Your task to perform on an android device: change alarm snooze length Image 0: 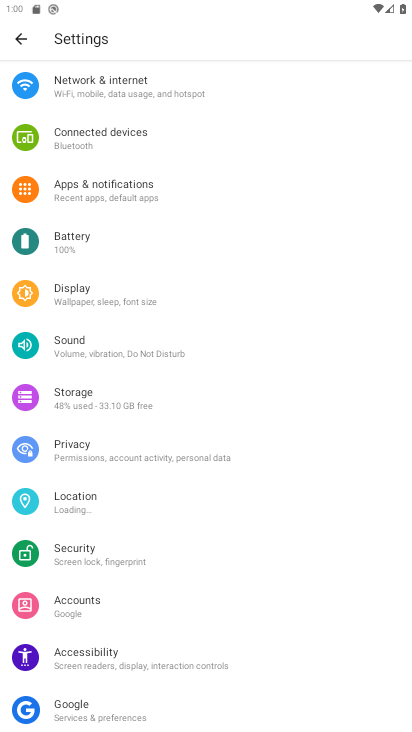
Step 0: press home button
Your task to perform on an android device: change alarm snooze length Image 1: 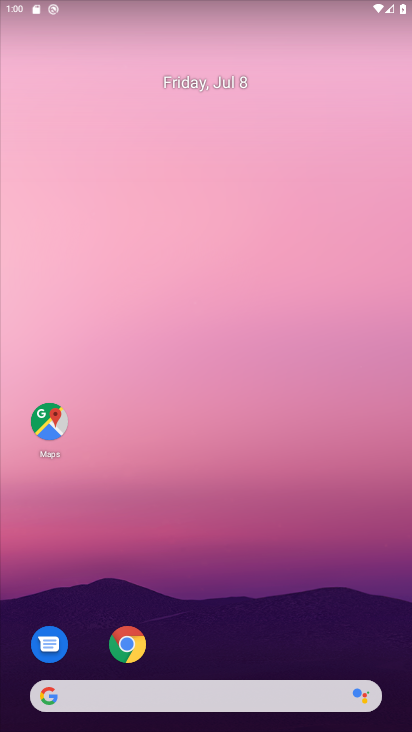
Step 1: drag from (241, 645) to (302, 102)
Your task to perform on an android device: change alarm snooze length Image 2: 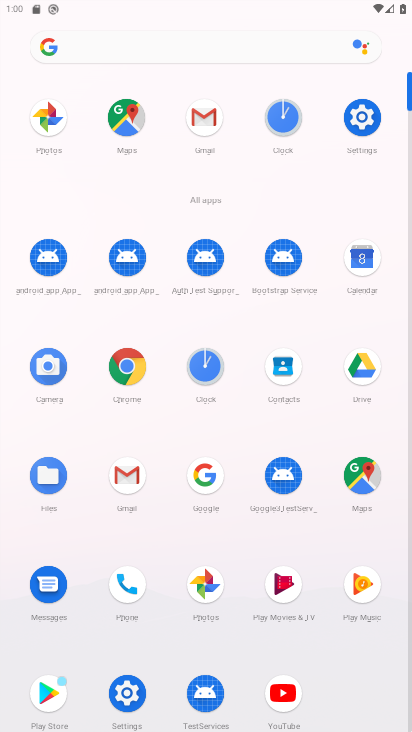
Step 2: click (207, 369)
Your task to perform on an android device: change alarm snooze length Image 3: 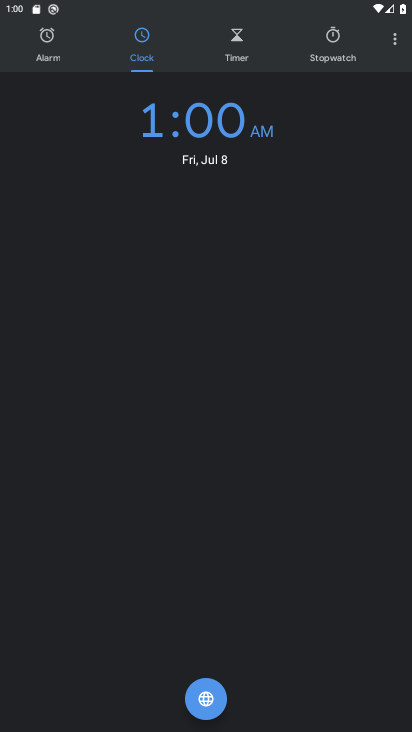
Step 3: click (390, 38)
Your task to perform on an android device: change alarm snooze length Image 4: 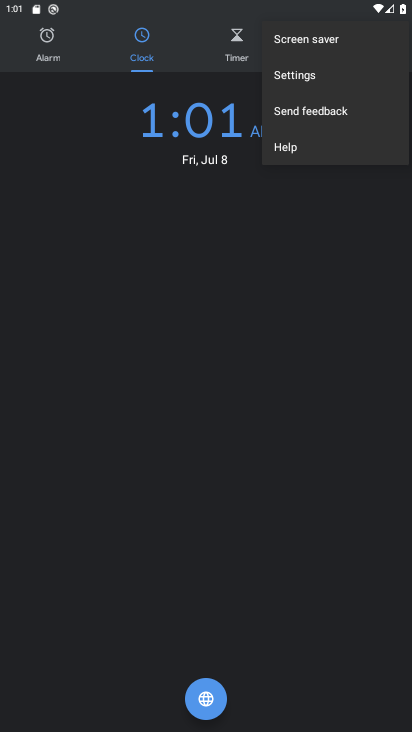
Step 4: click (381, 71)
Your task to perform on an android device: change alarm snooze length Image 5: 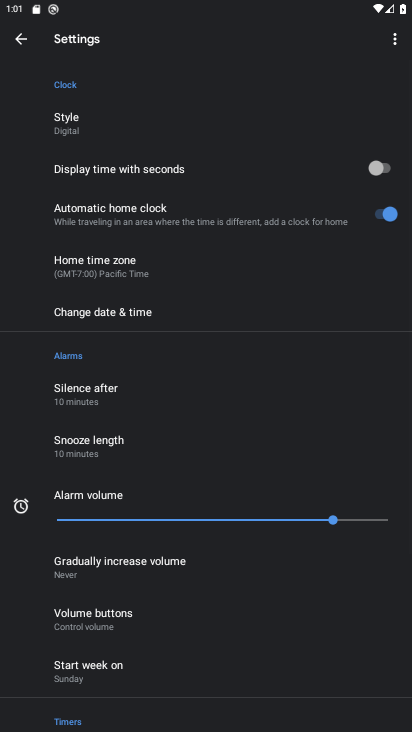
Step 5: drag from (160, 516) to (303, 128)
Your task to perform on an android device: change alarm snooze length Image 6: 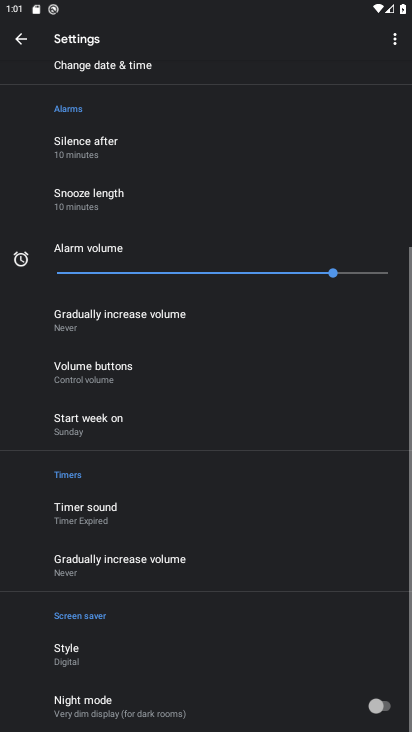
Step 6: drag from (212, 651) to (277, 381)
Your task to perform on an android device: change alarm snooze length Image 7: 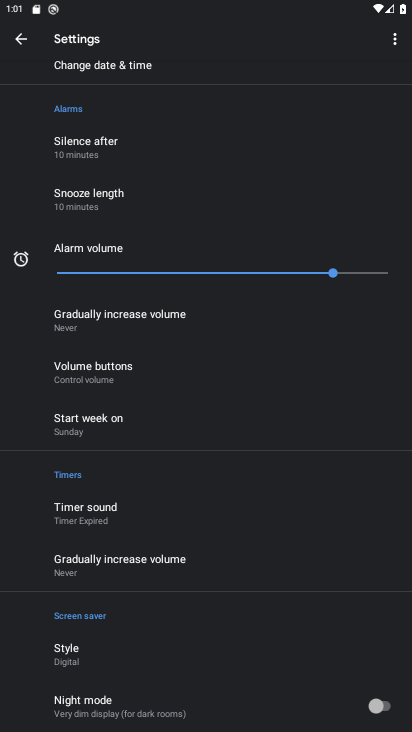
Step 7: click (180, 206)
Your task to perform on an android device: change alarm snooze length Image 8: 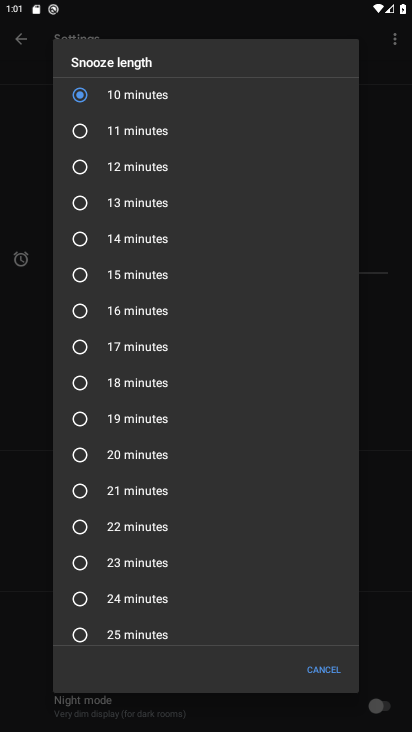
Step 8: click (159, 626)
Your task to perform on an android device: change alarm snooze length Image 9: 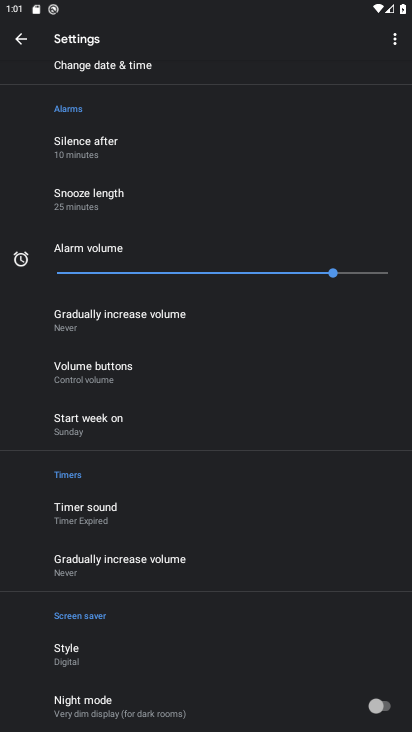
Step 9: task complete